Your task to perform on an android device: What's on my calendar tomorrow? Image 0: 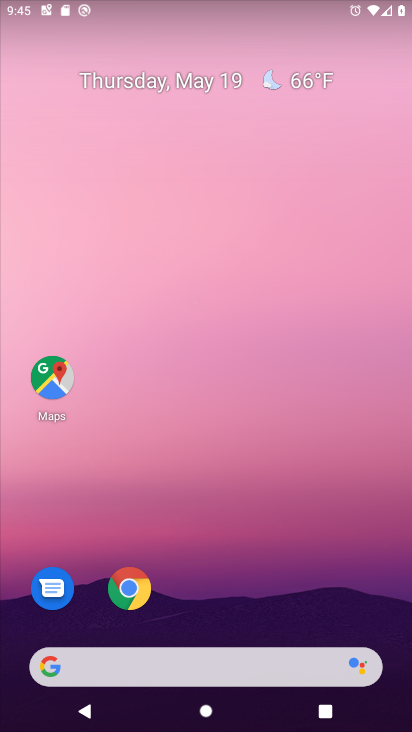
Step 0: drag from (290, 590) to (308, 285)
Your task to perform on an android device: What's on my calendar tomorrow? Image 1: 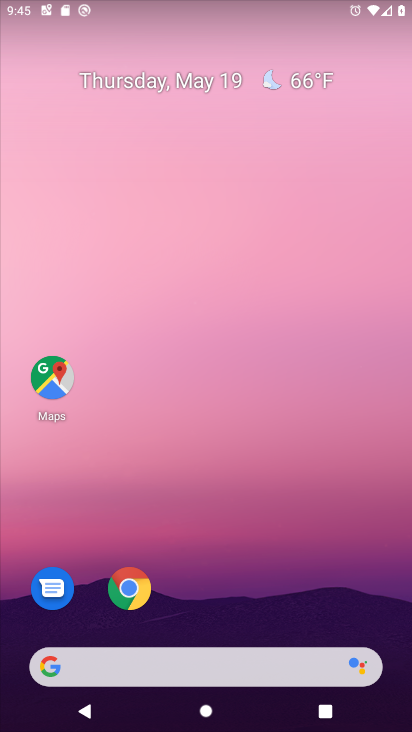
Step 1: drag from (344, 573) to (362, 213)
Your task to perform on an android device: What's on my calendar tomorrow? Image 2: 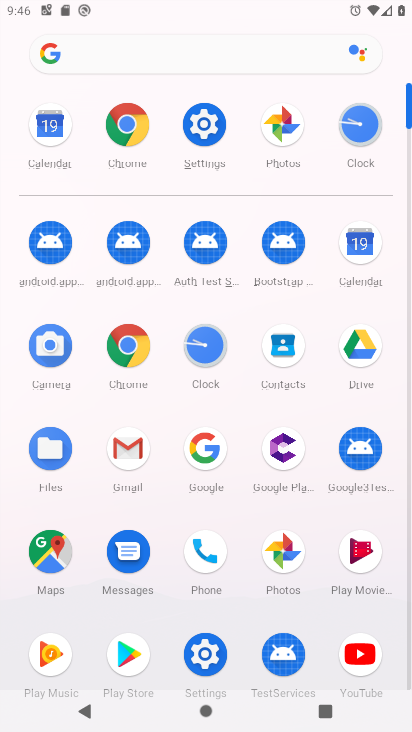
Step 2: click (362, 250)
Your task to perform on an android device: What's on my calendar tomorrow? Image 3: 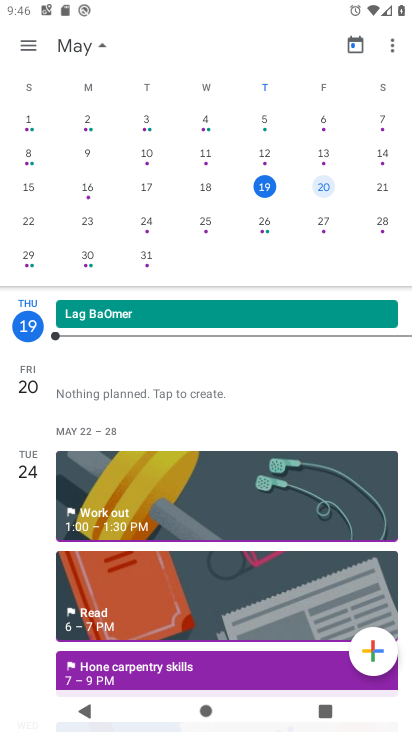
Step 3: click (385, 190)
Your task to perform on an android device: What's on my calendar tomorrow? Image 4: 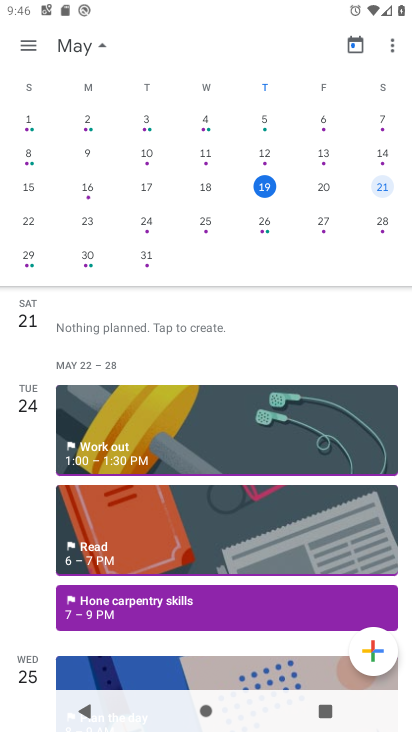
Step 4: task complete